Your task to perform on an android device: turn on location history Image 0: 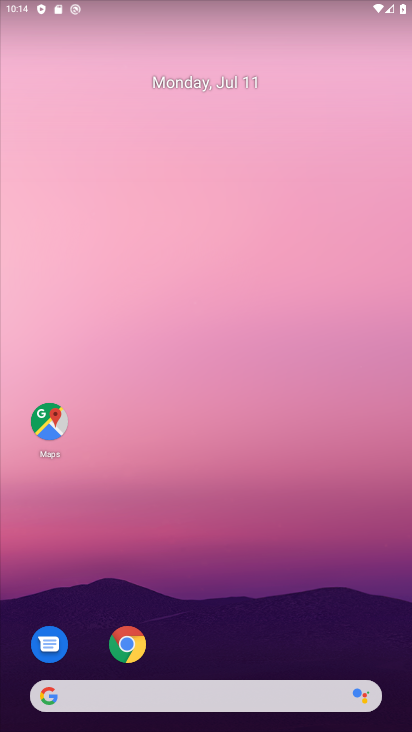
Step 0: drag from (210, 632) to (164, 2)
Your task to perform on an android device: turn on location history Image 1: 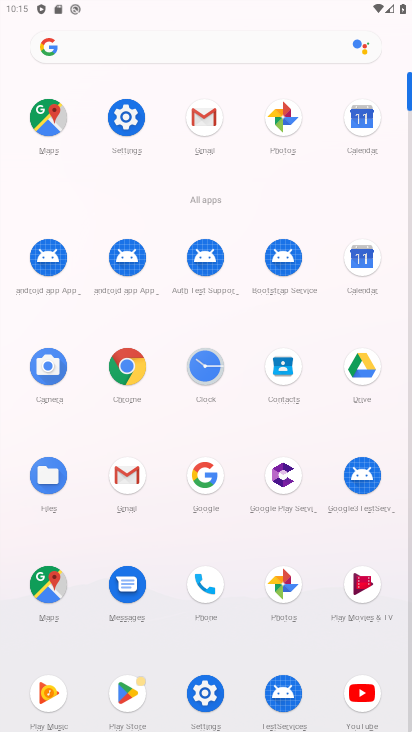
Step 1: click (210, 684)
Your task to perform on an android device: turn on location history Image 2: 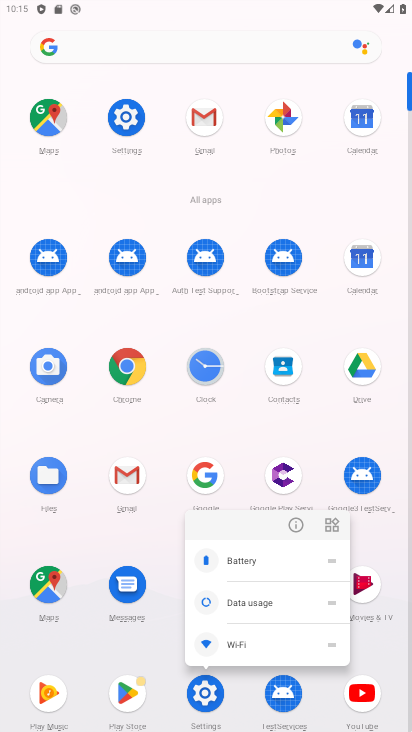
Step 2: click (202, 691)
Your task to perform on an android device: turn on location history Image 3: 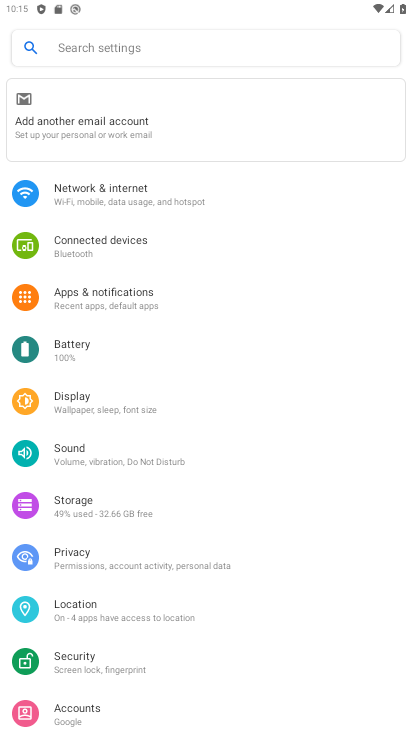
Step 3: click (113, 614)
Your task to perform on an android device: turn on location history Image 4: 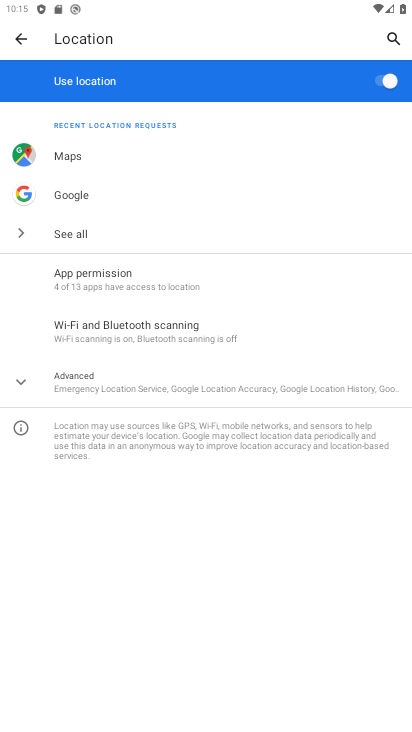
Step 4: click (111, 383)
Your task to perform on an android device: turn on location history Image 5: 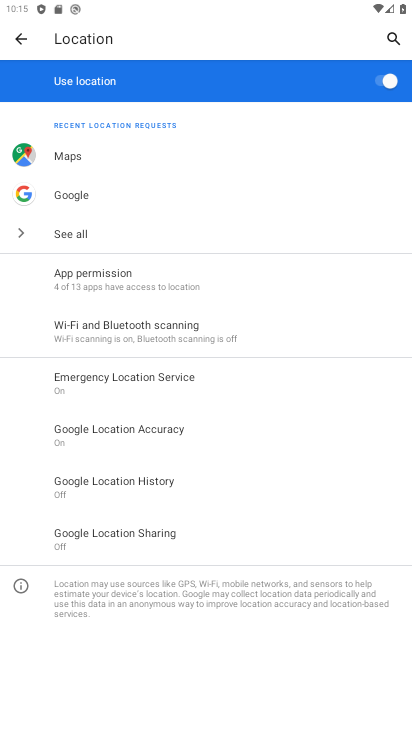
Step 5: click (115, 484)
Your task to perform on an android device: turn on location history Image 6: 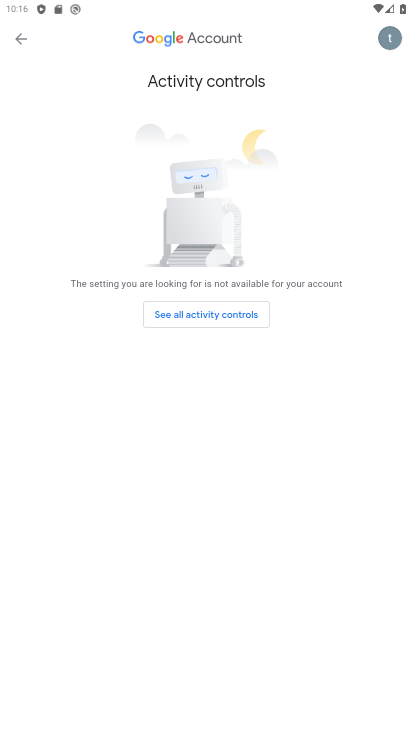
Step 6: task complete